Your task to perform on an android device: When is my next meeting? Image 0: 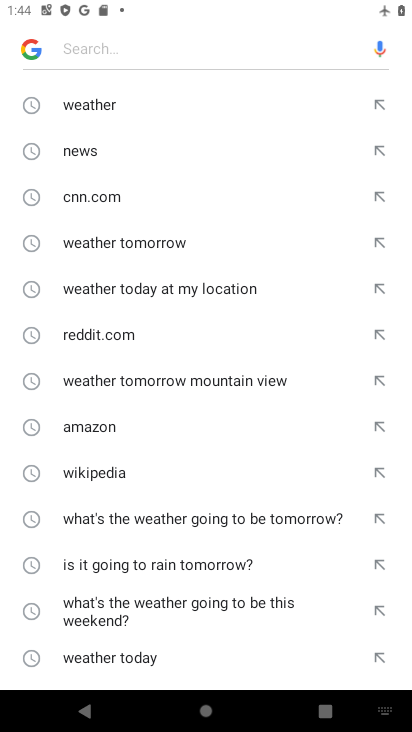
Step 0: press home button
Your task to perform on an android device: When is my next meeting? Image 1: 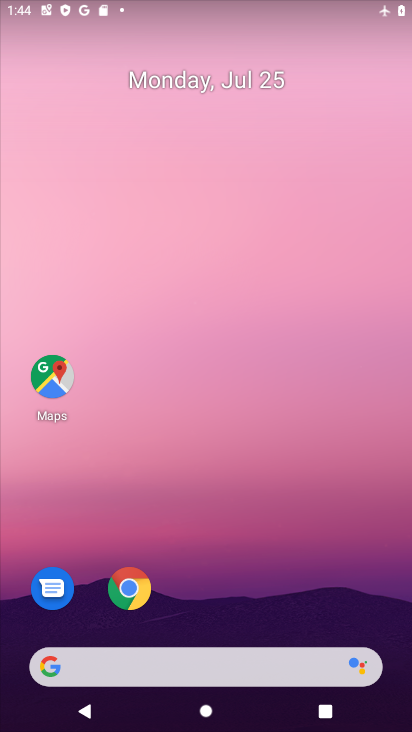
Step 1: drag from (209, 508) to (216, 254)
Your task to perform on an android device: When is my next meeting? Image 2: 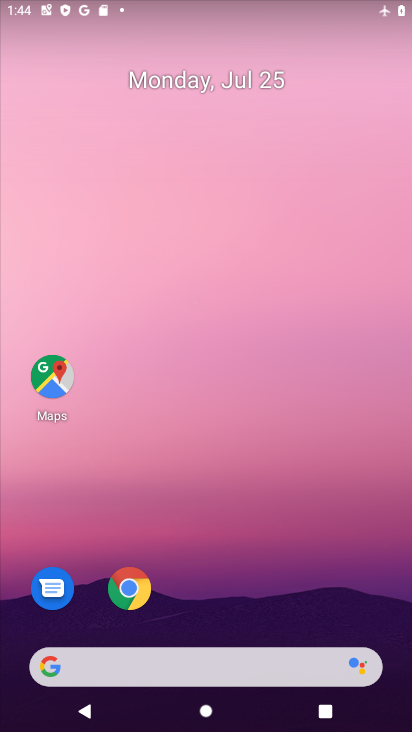
Step 2: drag from (196, 555) to (253, 3)
Your task to perform on an android device: When is my next meeting? Image 3: 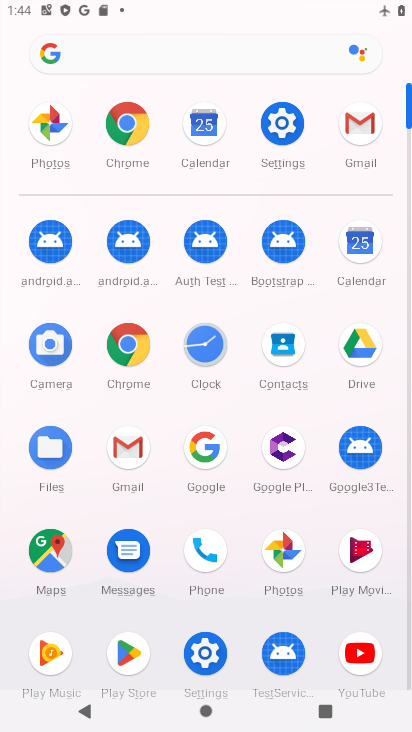
Step 3: click (353, 264)
Your task to perform on an android device: When is my next meeting? Image 4: 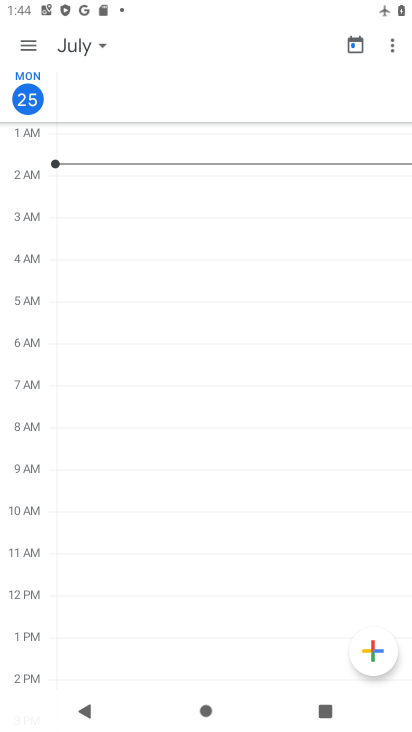
Step 4: press back button
Your task to perform on an android device: When is my next meeting? Image 5: 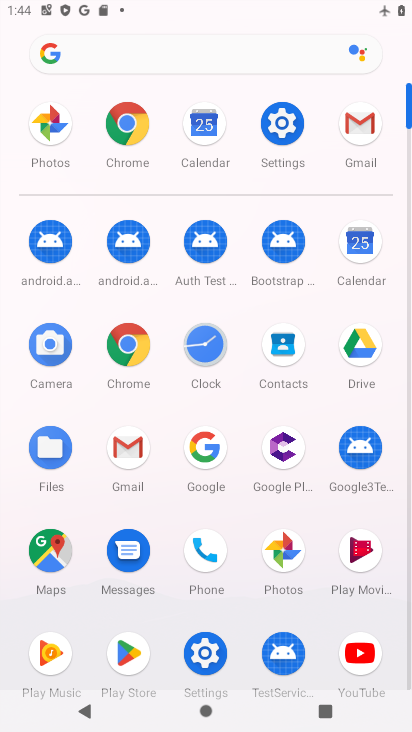
Step 5: click (282, 123)
Your task to perform on an android device: When is my next meeting? Image 6: 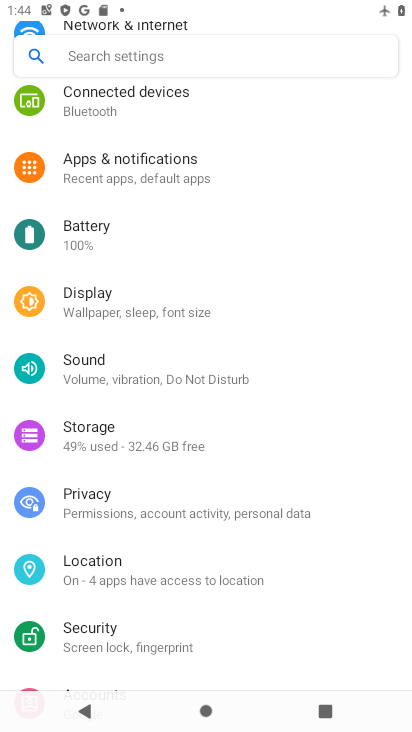
Step 6: click (255, 509)
Your task to perform on an android device: When is my next meeting? Image 7: 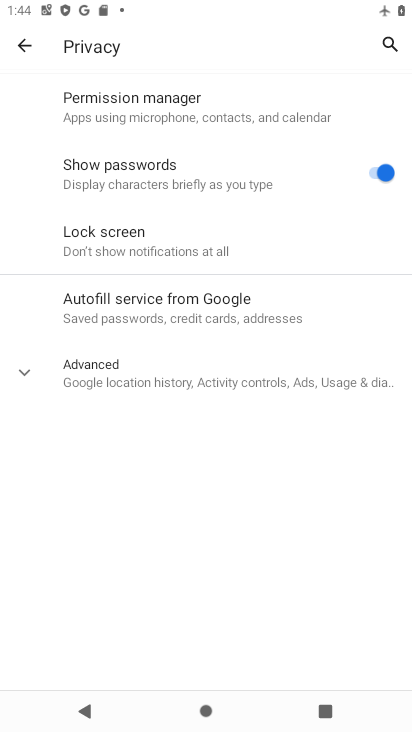
Step 7: drag from (211, 279) to (211, 470)
Your task to perform on an android device: When is my next meeting? Image 8: 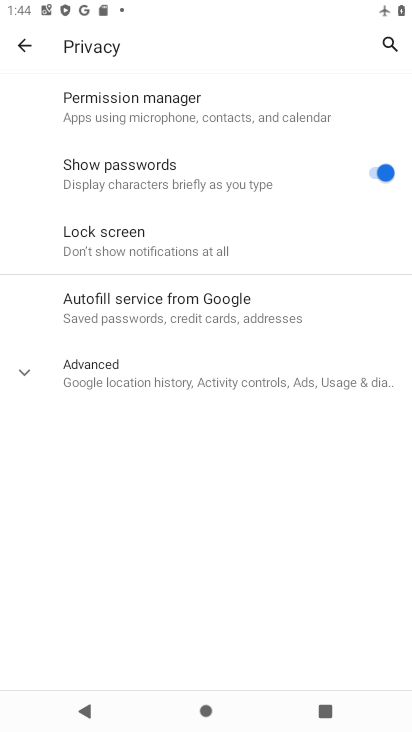
Step 8: click (14, 47)
Your task to perform on an android device: When is my next meeting? Image 9: 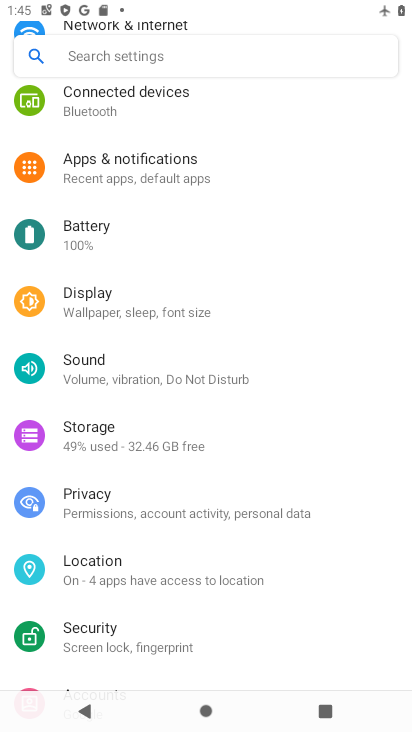
Step 9: drag from (236, 195) to (273, 490)
Your task to perform on an android device: When is my next meeting? Image 10: 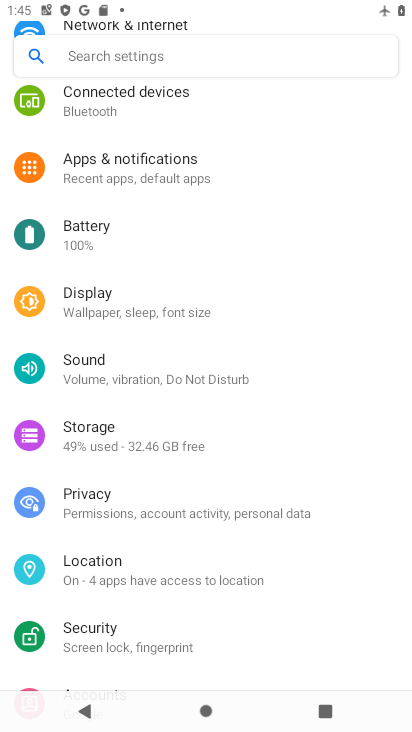
Step 10: click (229, 463)
Your task to perform on an android device: When is my next meeting? Image 11: 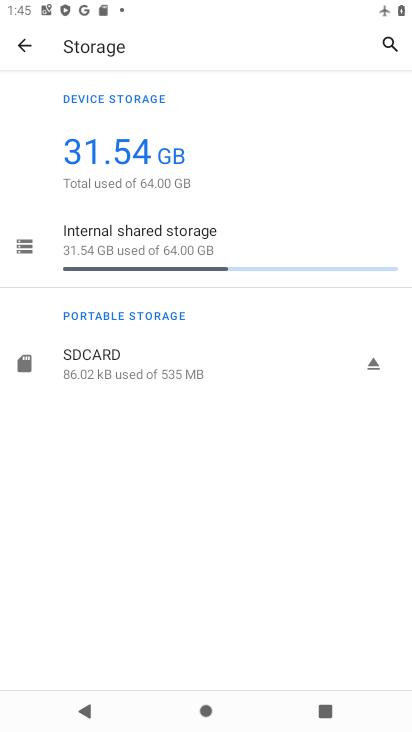
Step 11: click (29, 43)
Your task to perform on an android device: When is my next meeting? Image 12: 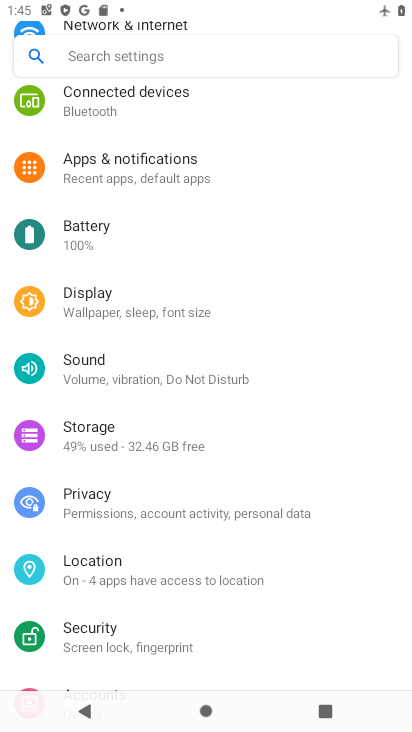
Step 12: click (112, 103)
Your task to perform on an android device: When is my next meeting? Image 13: 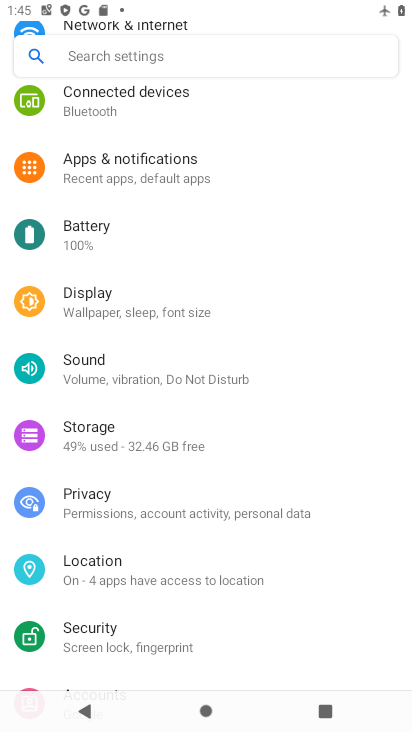
Step 13: drag from (112, 136) to (109, 339)
Your task to perform on an android device: When is my next meeting? Image 14: 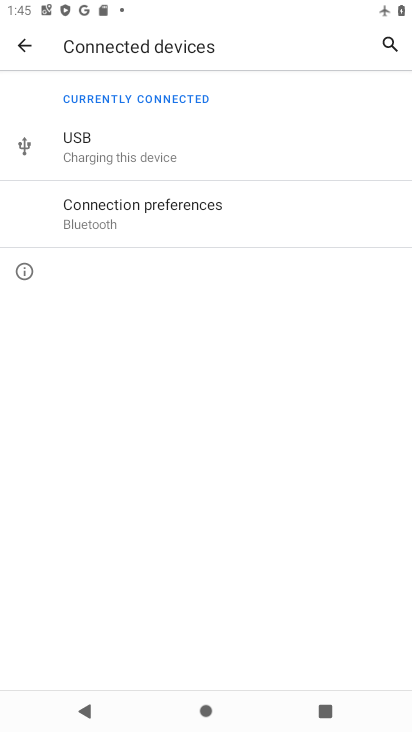
Step 14: click (18, 46)
Your task to perform on an android device: When is my next meeting? Image 15: 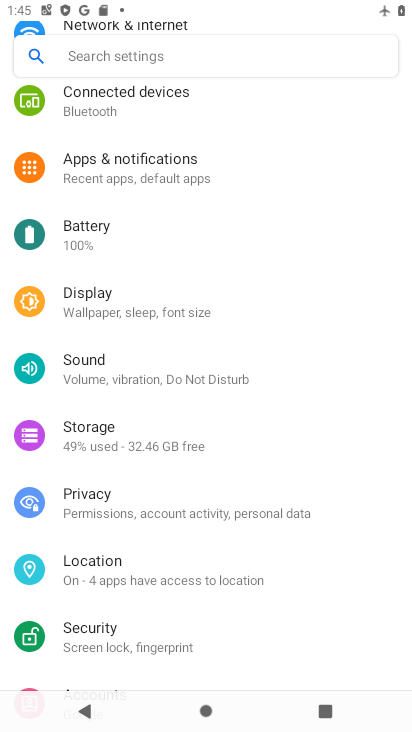
Step 15: drag from (181, 191) to (195, 378)
Your task to perform on an android device: When is my next meeting? Image 16: 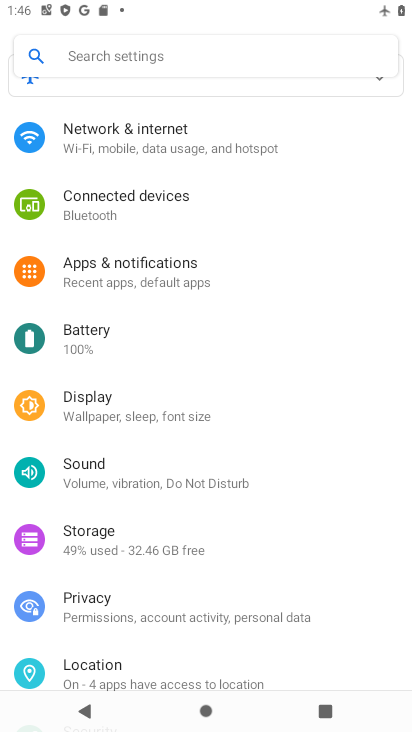
Step 16: click (143, 137)
Your task to perform on an android device: When is my next meeting? Image 17: 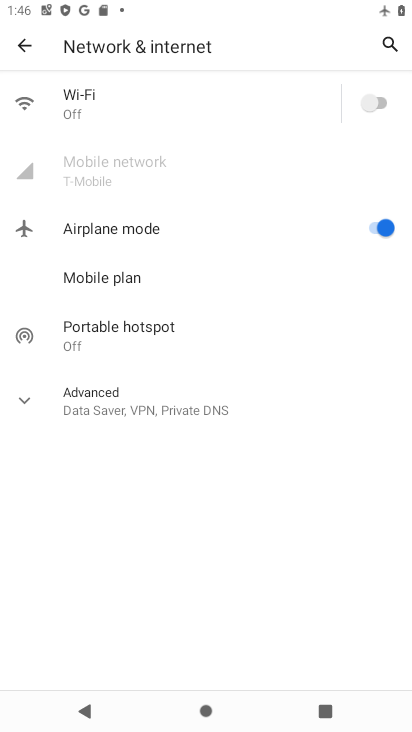
Step 17: click (370, 229)
Your task to perform on an android device: When is my next meeting? Image 18: 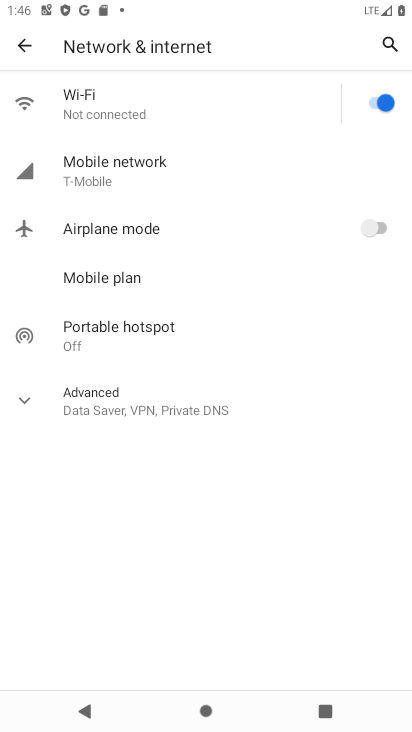
Step 18: press back button
Your task to perform on an android device: When is my next meeting? Image 19: 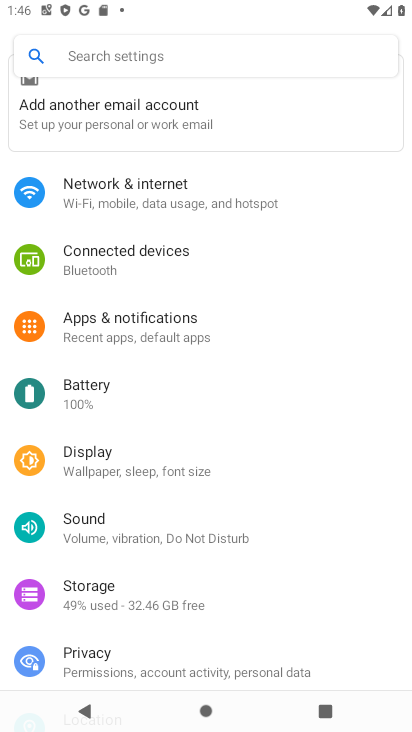
Step 19: press back button
Your task to perform on an android device: When is my next meeting? Image 20: 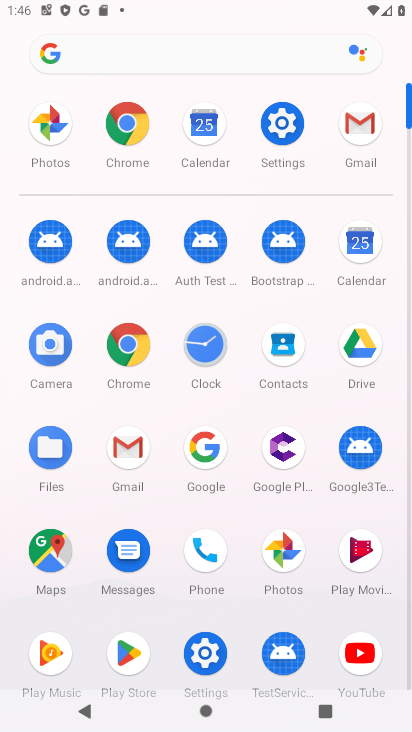
Step 20: click (360, 269)
Your task to perform on an android device: When is my next meeting? Image 21: 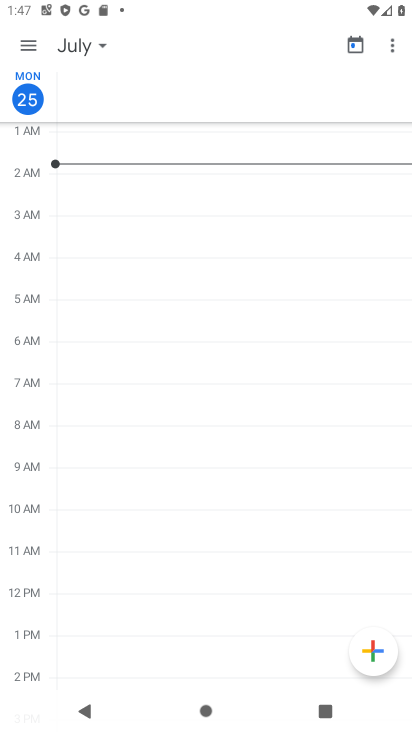
Step 21: click (25, 48)
Your task to perform on an android device: When is my next meeting? Image 22: 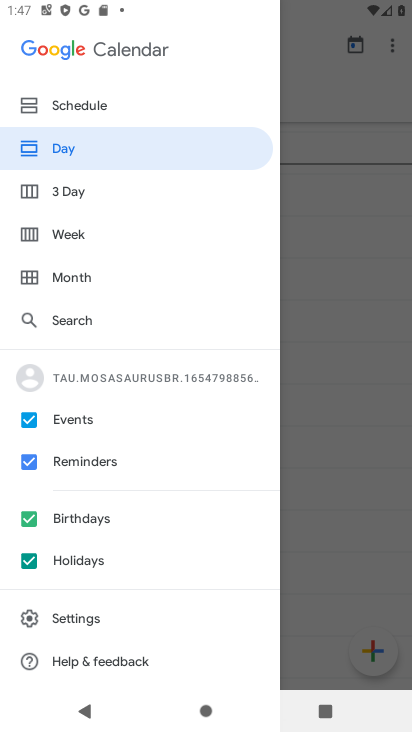
Step 22: click (89, 104)
Your task to perform on an android device: When is my next meeting? Image 23: 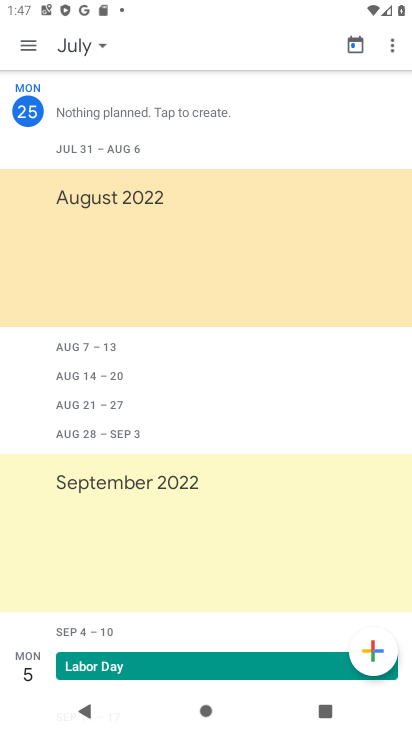
Step 23: task complete